Your task to perform on an android device: turn on data saver in the chrome app Image 0: 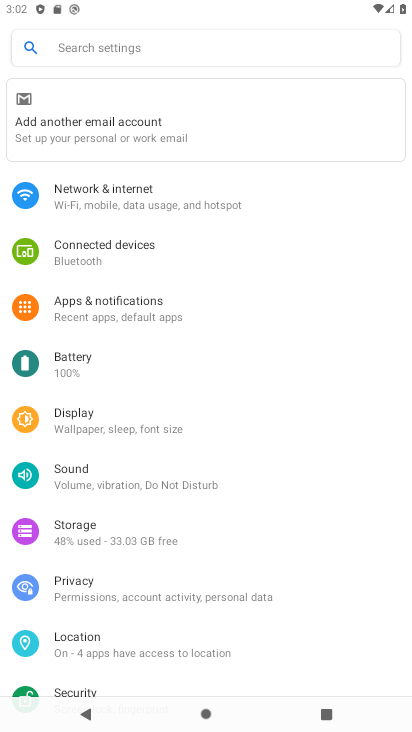
Step 0: press home button
Your task to perform on an android device: turn on data saver in the chrome app Image 1: 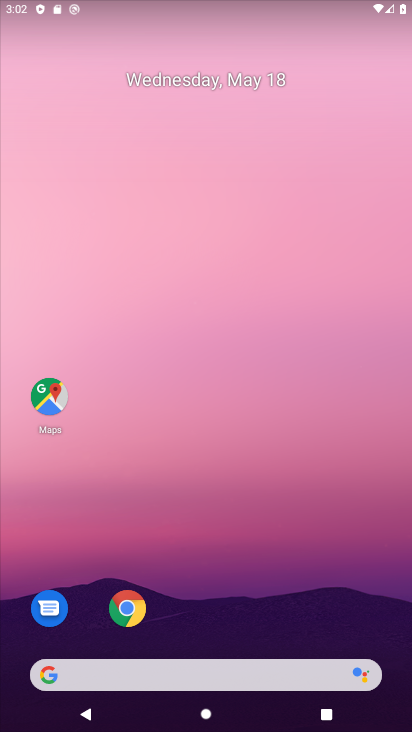
Step 1: click (198, 121)
Your task to perform on an android device: turn on data saver in the chrome app Image 2: 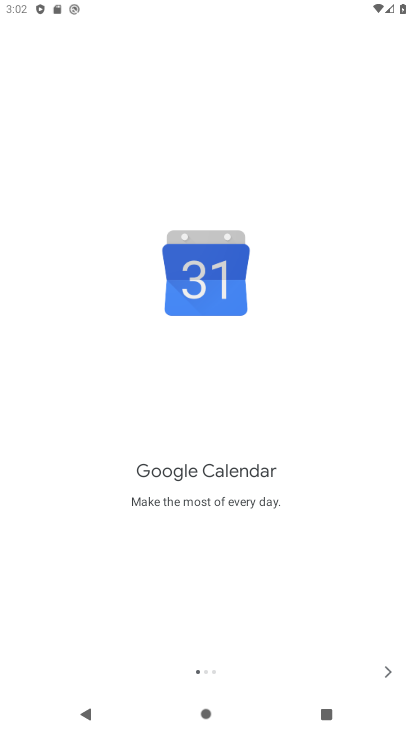
Step 2: press home button
Your task to perform on an android device: turn on data saver in the chrome app Image 3: 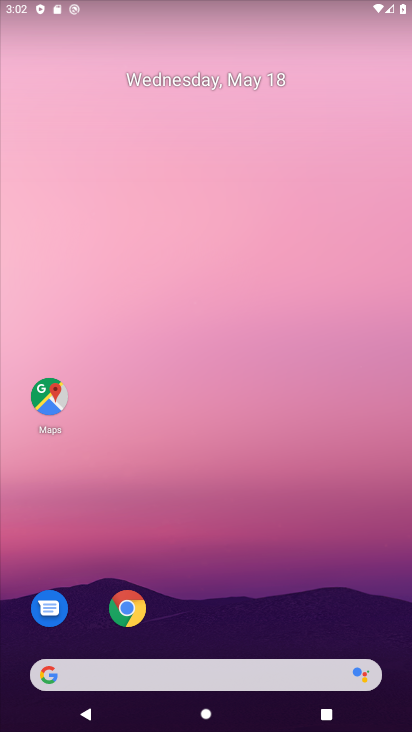
Step 3: click (127, 609)
Your task to perform on an android device: turn on data saver in the chrome app Image 4: 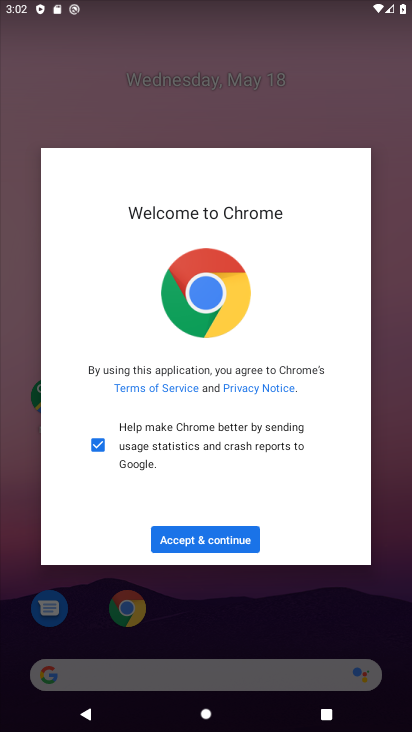
Step 4: click (206, 526)
Your task to perform on an android device: turn on data saver in the chrome app Image 5: 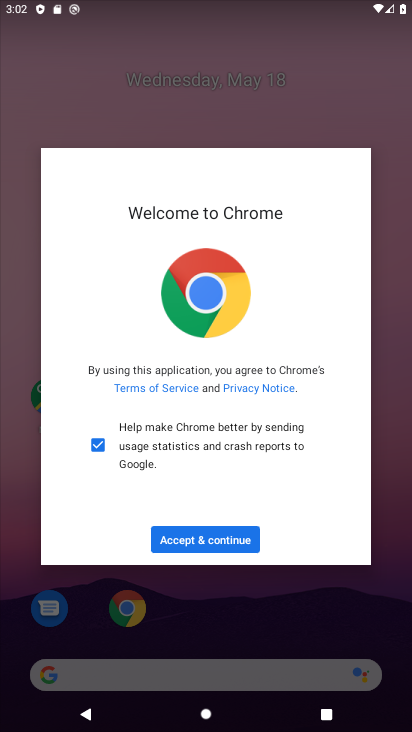
Step 5: click (197, 551)
Your task to perform on an android device: turn on data saver in the chrome app Image 6: 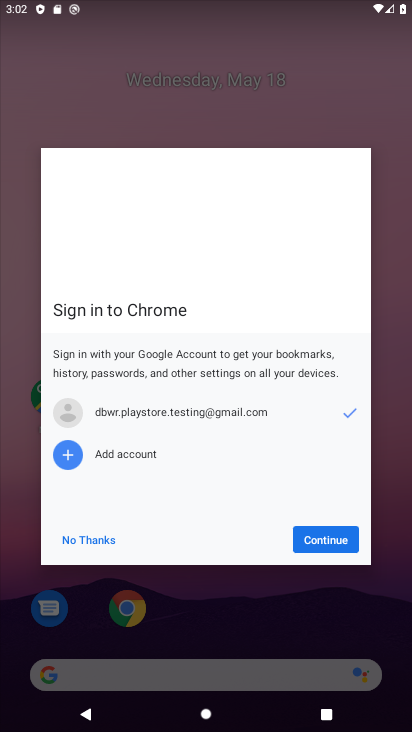
Step 6: click (321, 528)
Your task to perform on an android device: turn on data saver in the chrome app Image 7: 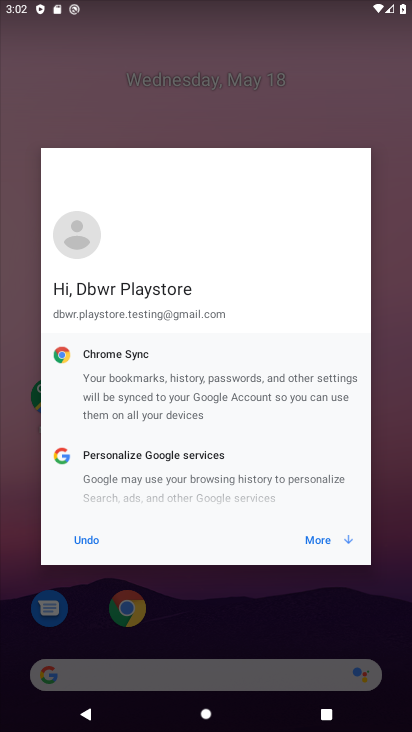
Step 7: click (324, 539)
Your task to perform on an android device: turn on data saver in the chrome app Image 8: 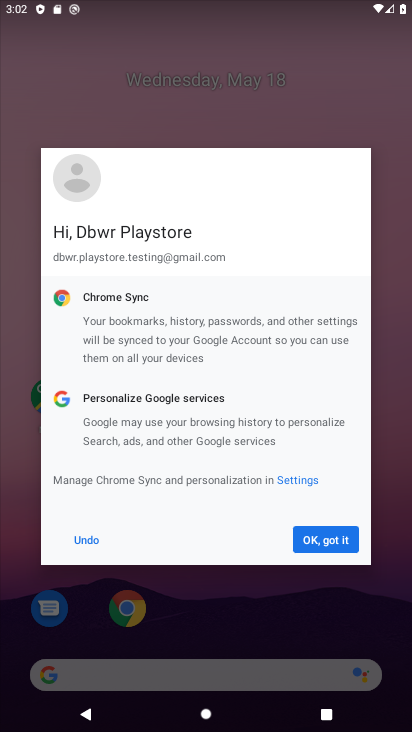
Step 8: click (324, 541)
Your task to perform on an android device: turn on data saver in the chrome app Image 9: 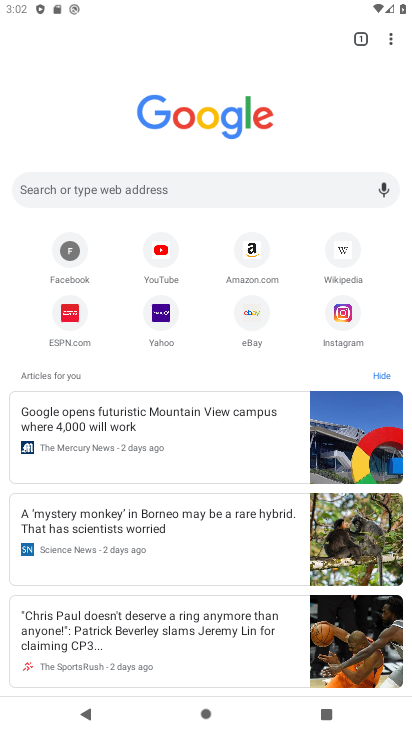
Step 9: click (393, 36)
Your task to perform on an android device: turn on data saver in the chrome app Image 10: 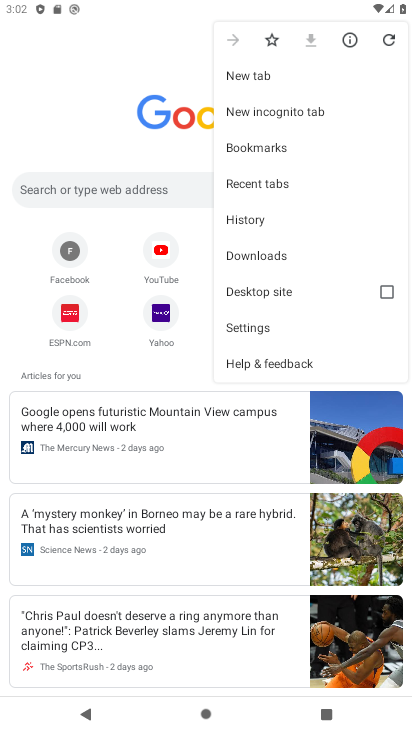
Step 10: click (243, 322)
Your task to perform on an android device: turn on data saver in the chrome app Image 11: 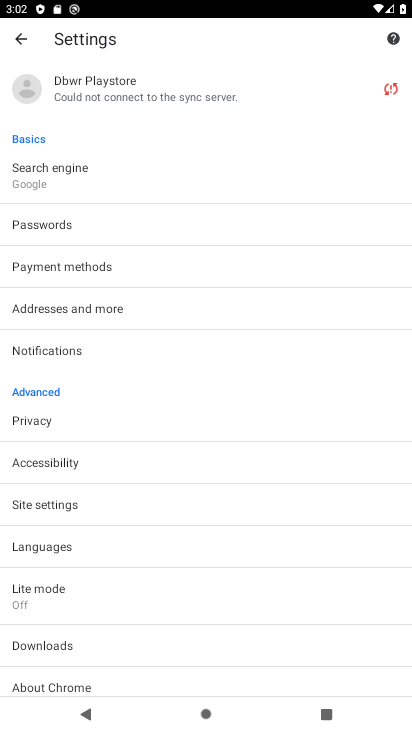
Step 11: click (26, 590)
Your task to perform on an android device: turn on data saver in the chrome app Image 12: 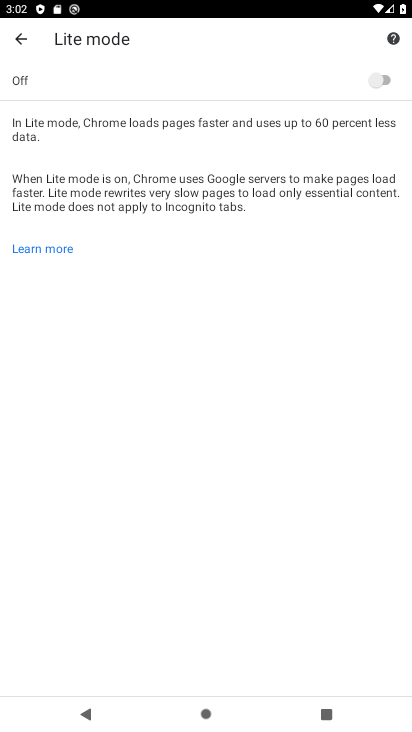
Step 12: click (376, 76)
Your task to perform on an android device: turn on data saver in the chrome app Image 13: 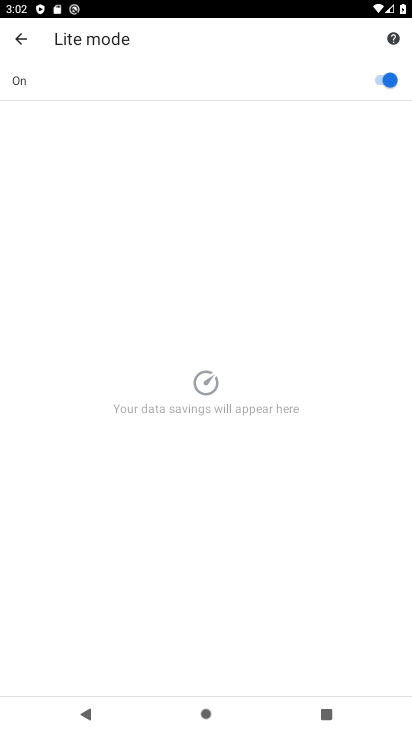
Step 13: task complete